Your task to perform on an android device: move an email to a new category in the gmail app Image 0: 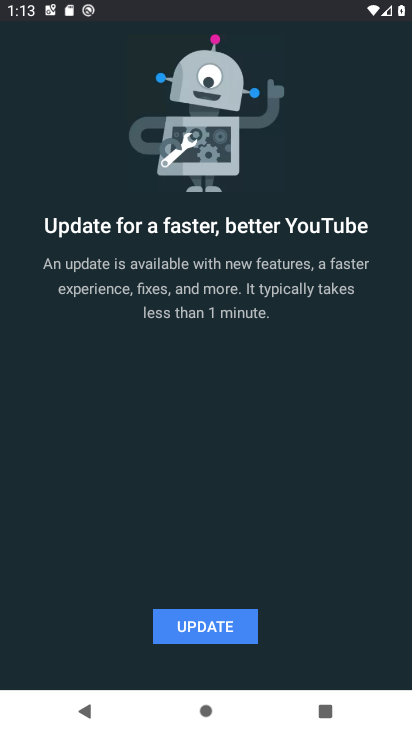
Step 0: drag from (198, 572) to (211, 376)
Your task to perform on an android device: move an email to a new category in the gmail app Image 1: 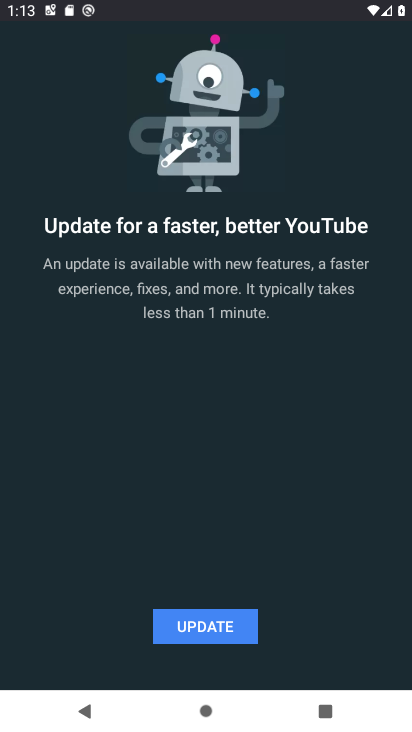
Step 1: press home button
Your task to perform on an android device: move an email to a new category in the gmail app Image 2: 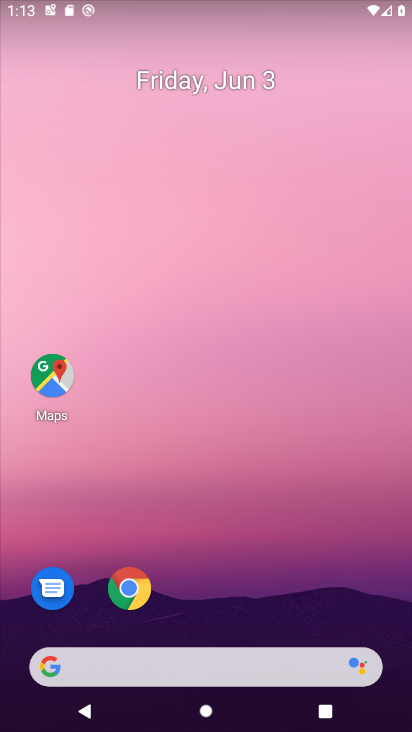
Step 2: drag from (215, 525) to (233, 352)
Your task to perform on an android device: move an email to a new category in the gmail app Image 3: 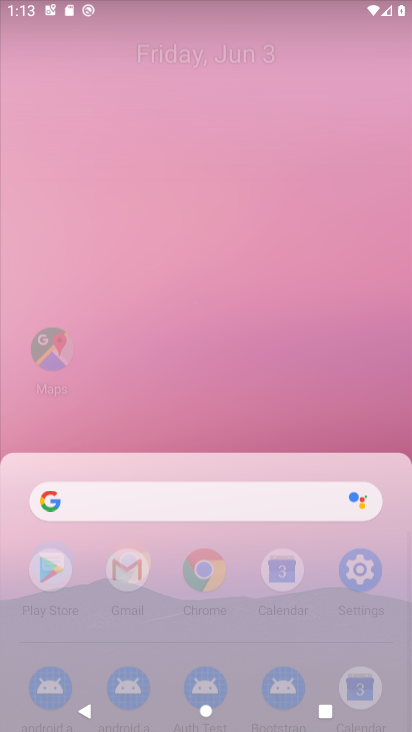
Step 3: click (263, 142)
Your task to perform on an android device: move an email to a new category in the gmail app Image 4: 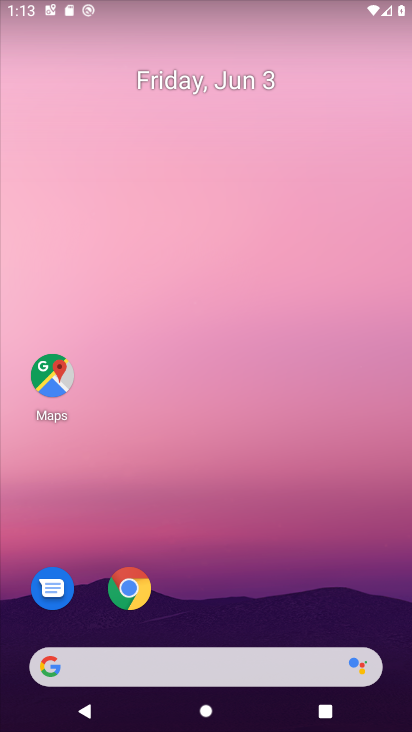
Step 4: drag from (232, 528) to (249, 75)
Your task to perform on an android device: move an email to a new category in the gmail app Image 5: 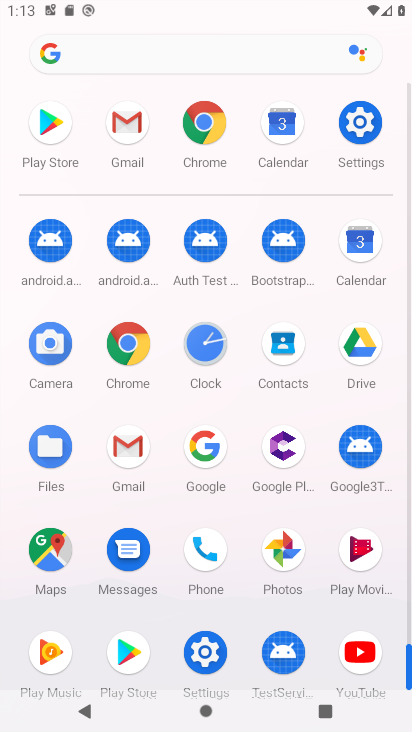
Step 5: click (134, 464)
Your task to perform on an android device: move an email to a new category in the gmail app Image 6: 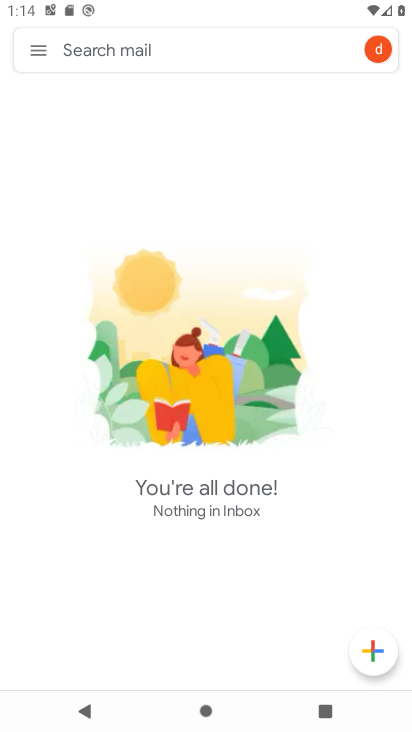
Step 6: click (34, 55)
Your task to perform on an android device: move an email to a new category in the gmail app Image 7: 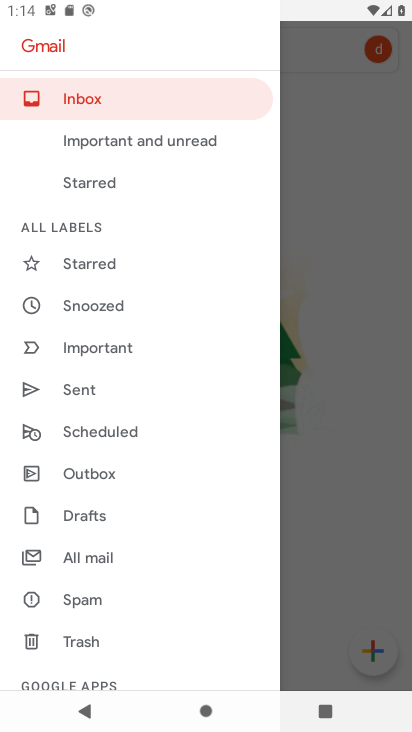
Step 7: drag from (137, 566) to (180, 269)
Your task to perform on an android device: move an email to a new category in the gmail app Image 8: 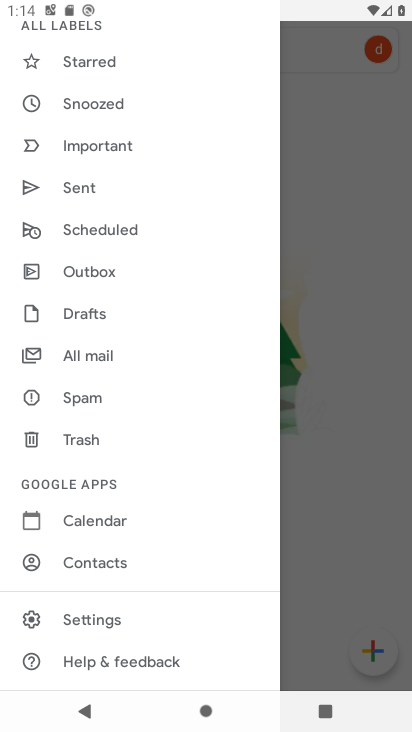
Step 8: click (130, 360)
Your task to perform on an android device: move an email to a new category in the gmail app Image 9: 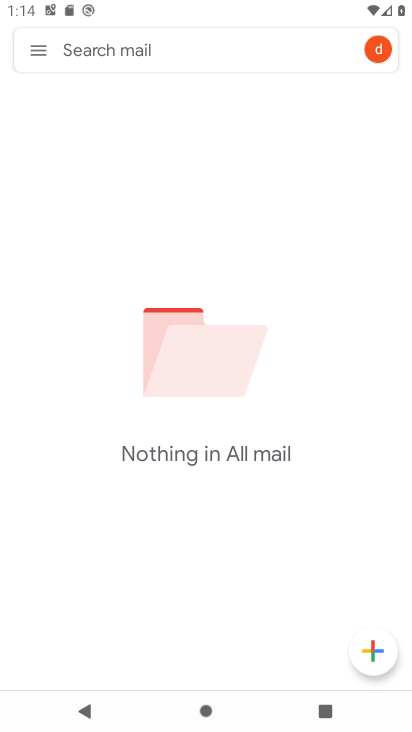
Step 9: click (40, 52)
Your task to perform on an android device: move an email to a new category in the gmail app Image 10: 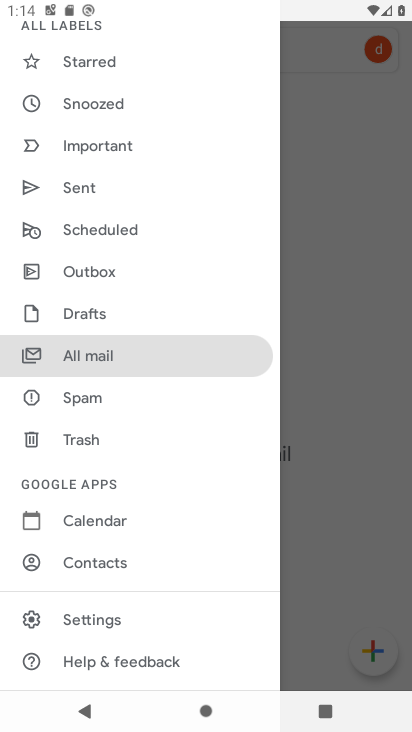
Step 10: click (117, 347)
Your task to perform on an android device: move an email to a new category in the gmail app Image 11: 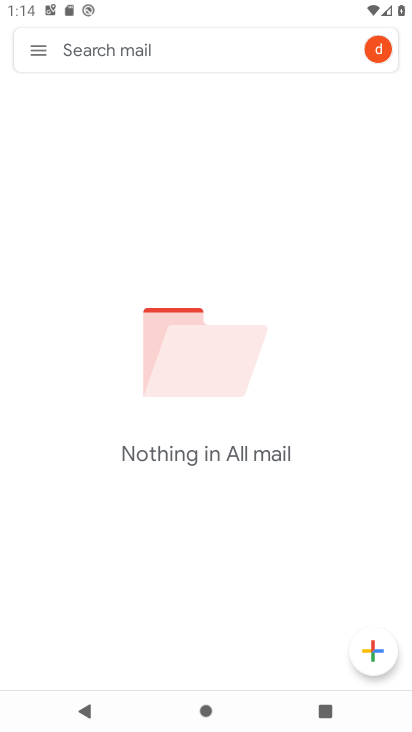
Step 11: task complete